Your task to perform on an android device: open app "Google Chrome" Image 0: 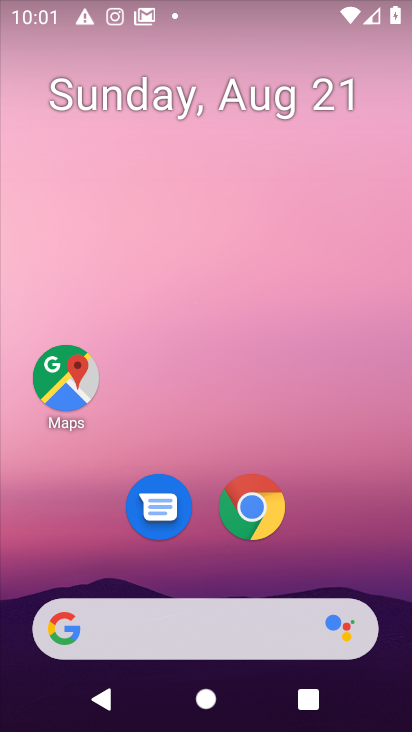
Step 0: click (244, 512)
Your task to perform on an android device: open app "Google Chrome" Image 1: 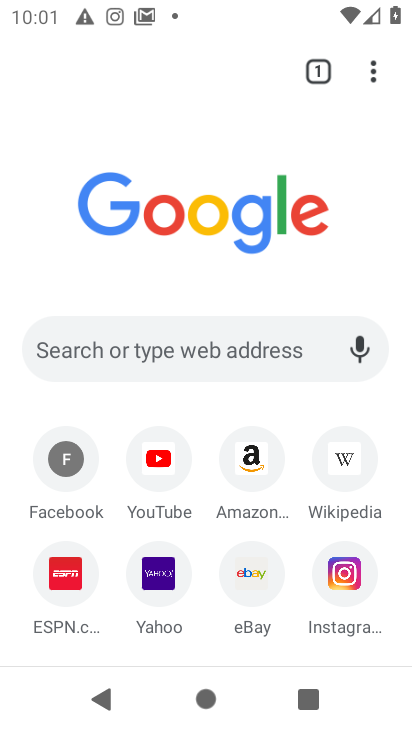
Step 1: task complete